Your task to perform on an android device: Go to Yahoo.com Image 0: 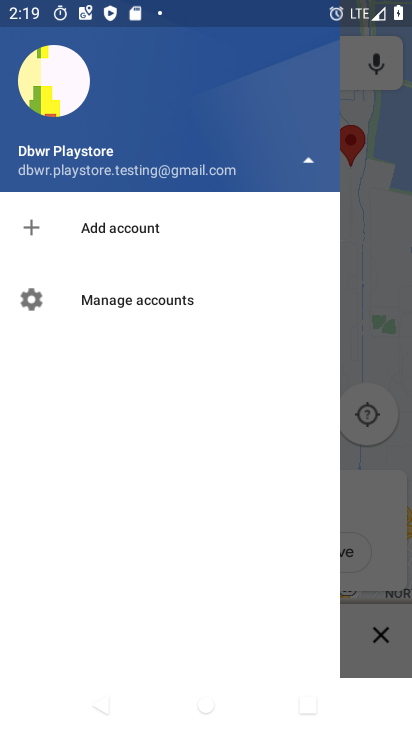
Step 0: press home button
Your task to perform on an android device: Go to Yahoo.com Image 1: 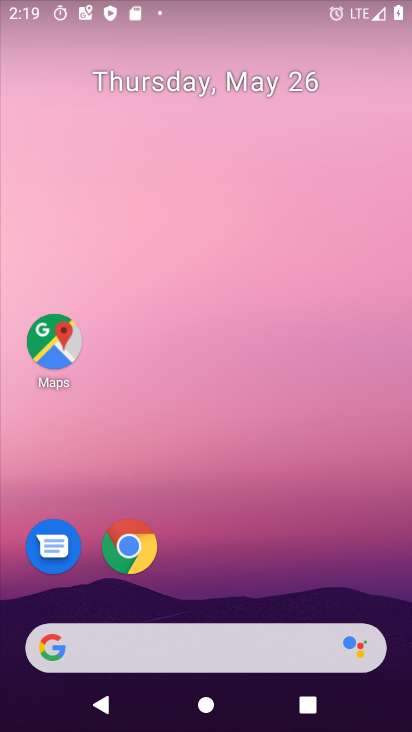
Step 1: click (133, 543)
Your task to perform on an android device: Go to Yahoo.com Image 2: 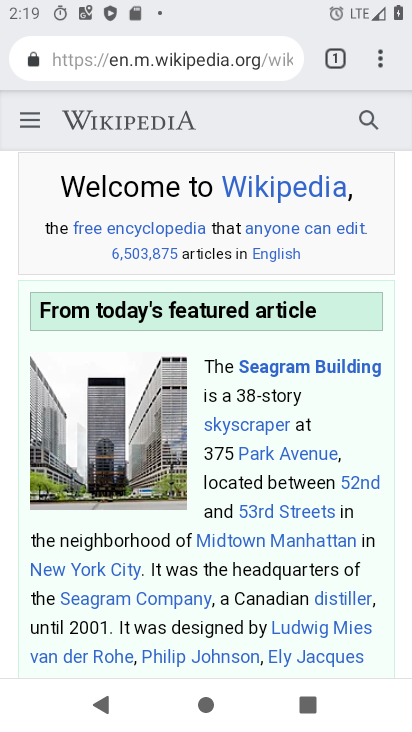
Step 2: press back button
Your task to perform on an android device: Go to Yahoo.com Image 3: 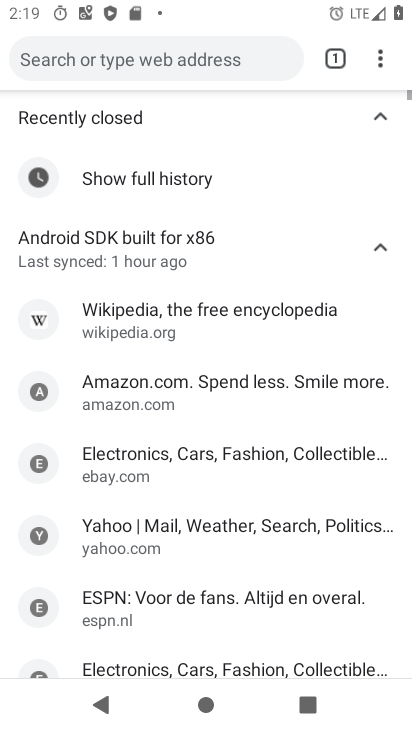
Step 3: press back button
Your task to perform on an android device: Go to Yahoo.com Image 4: 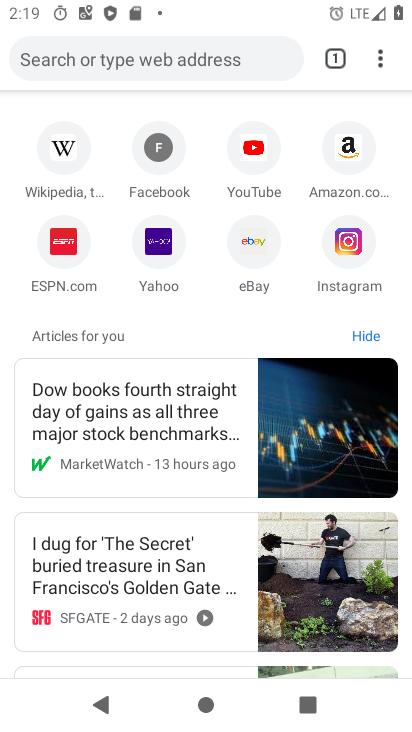
Step 4: click (162, 251)
Your task to perform on an android device: Go to Yahoo.com Image 5: 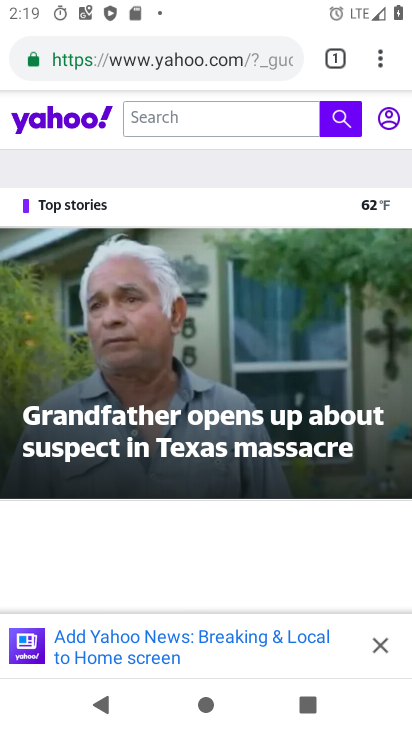
Step 5: task complete